Your task to perform on an android device: open app "Fetch Rewards" (install if not already installed) Image 0: 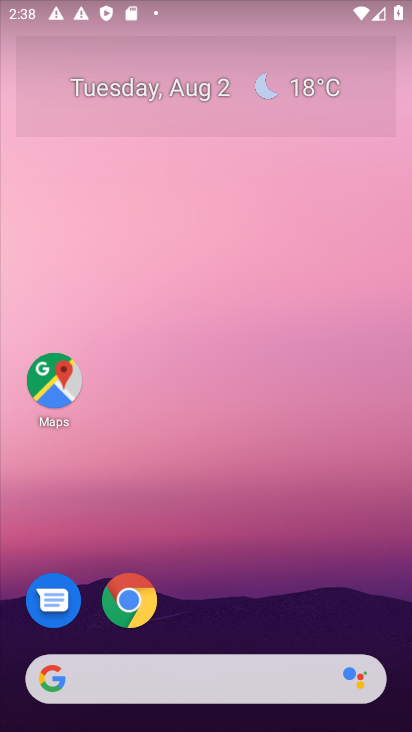
Step 0: drag from (226, 266) to (278, 28)
Your task to perform on an android device: open app "Fetch Rewards" (install if not already installed) Image 1: 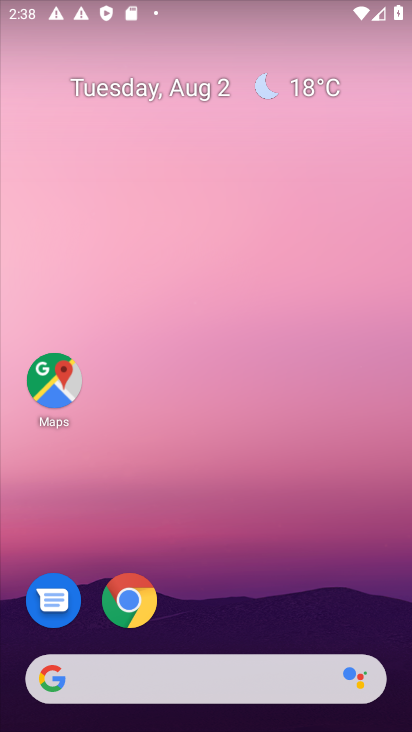
Step 1: drag from (139, 591) to (216, 103)
Your task to perform on an android device: open app "Fetch Rewards" (install if not already installed) Image 2: 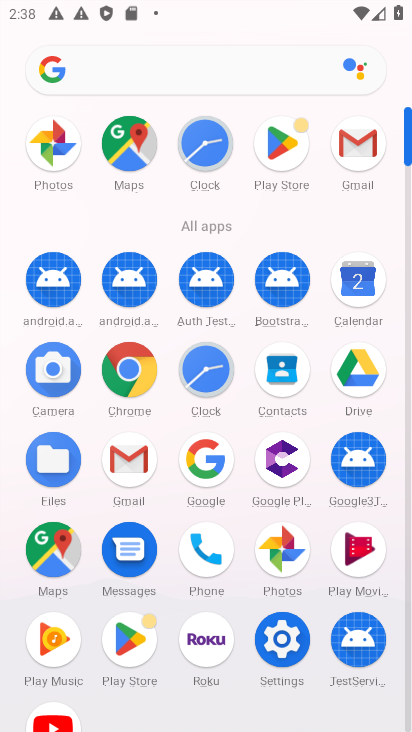
Step 2: click (279, 144)
Your task to perform on an android device: open app "Fetch Rewards" (install if not already installed) Image 3: 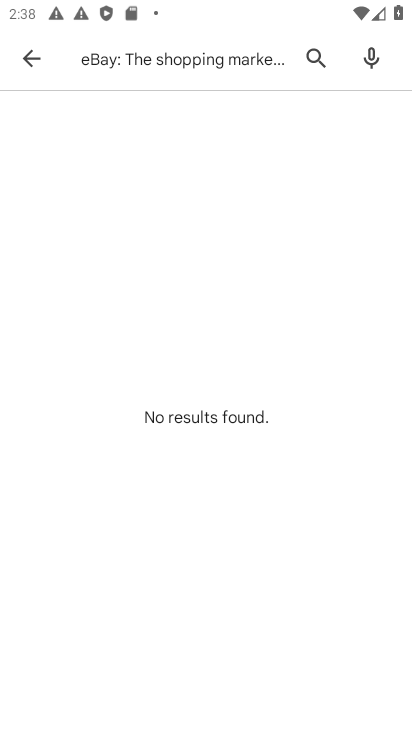
Step 3: click (315, 56)
Your task to perform on an android device: open app "Fetch Rewards" (install if not already installed) Image 4: 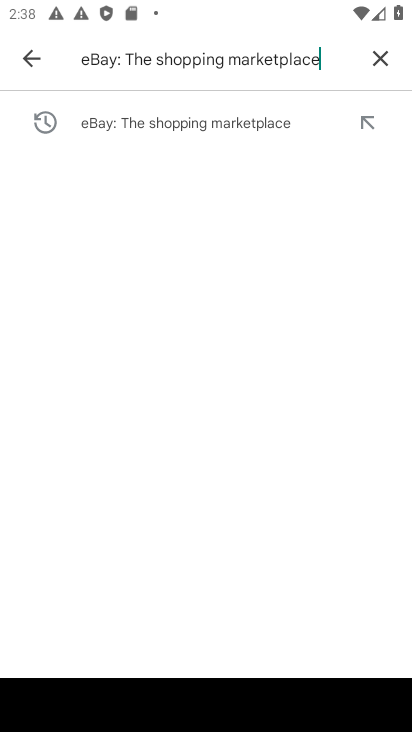
Step 4: click (380, 53)
Your task to perform on an android device: open app "Fetch Rewards" (install if not already installed) Image 5: 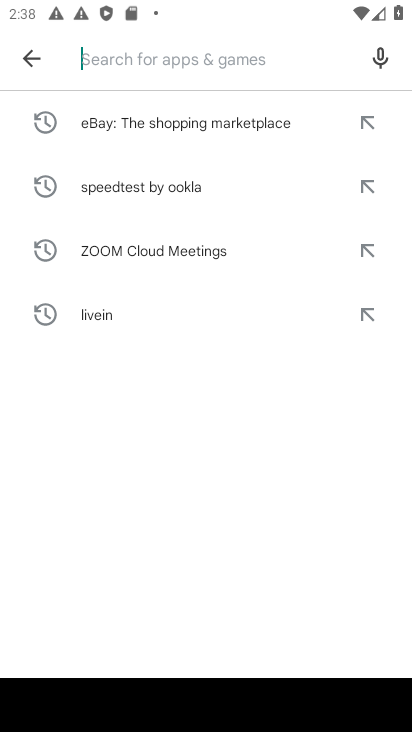
Step 5: type "fetch rewards"
Your task to perform on an android device: open app "Fetch Rewards" (install if not already installed) Image 6: 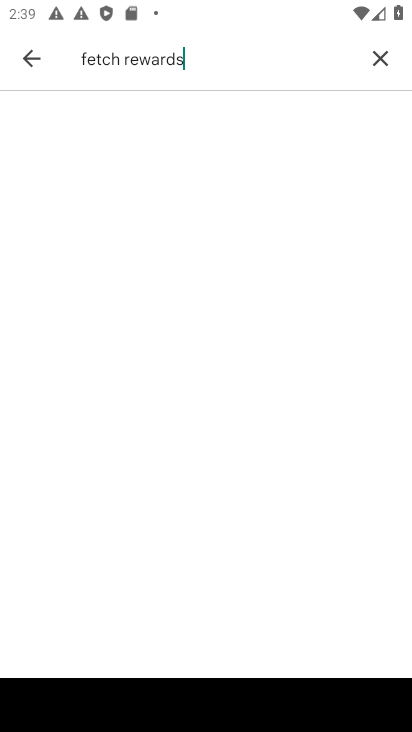
Step 6: type ""
Your task to perform on an android device: open app "Fetch Rewards" (install if not already installed) Image 7: 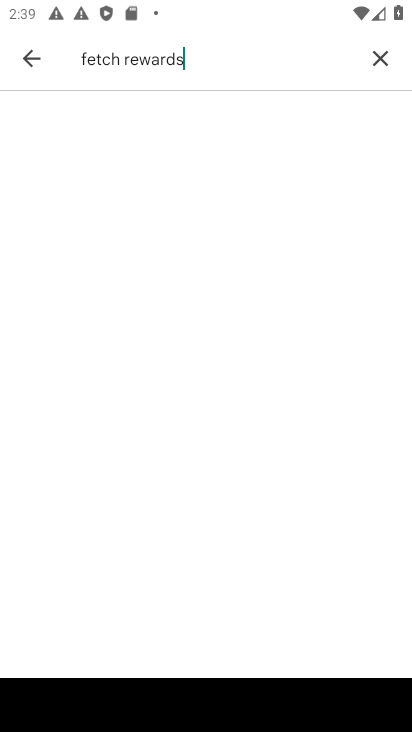
Step 7: press enter
Your task to perform on an android device: open app "Fetch Rewards" (install if not already installed) Image 8: 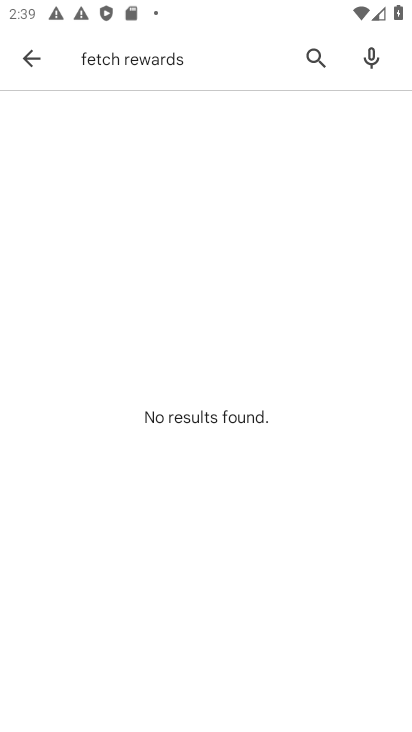
Step 8: press enter
Your task to perform on an android device: open app "Fetch Rewards" (install if not already installed) Image 9: 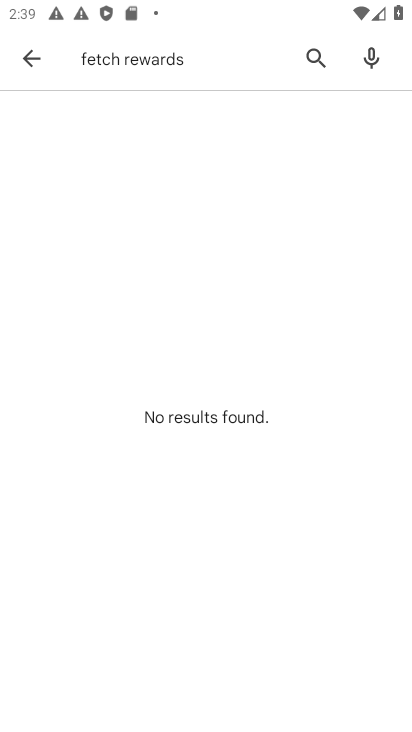
Step 9: task complete